Your task to perform on an android device: turn off improve location accuracy Image 0: 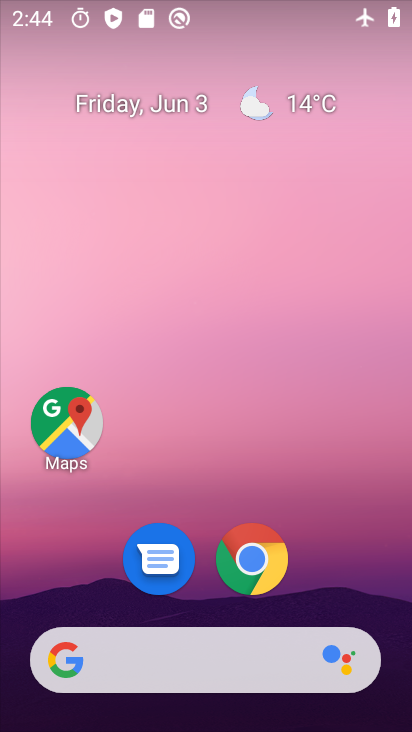
Step 0: drag from (201, 599) to (203, 429)
Your task to perform on an android device: turn off improve location accuracy Image 1: 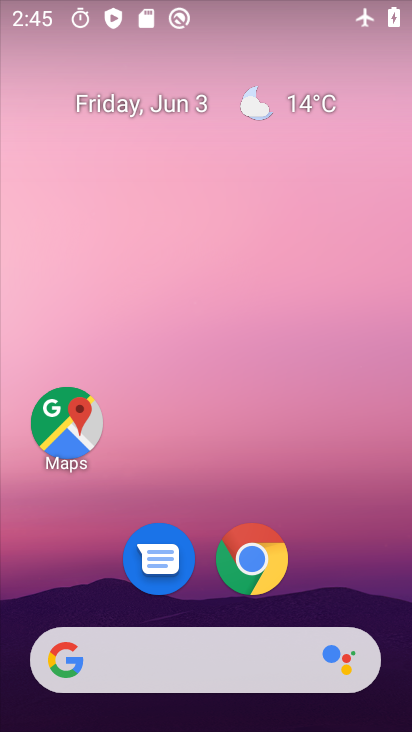
Step 1: drag from (205, 620) to (109, 19)
Your task to perform on an android device: turn off improve location accuracy Image 2: 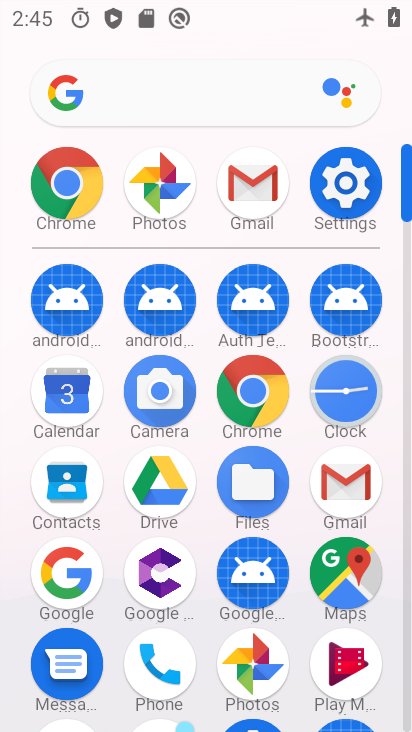
Step 2: click (368, 201)
Your task to perform on an android device: turn off improve location accuracy Image 3: 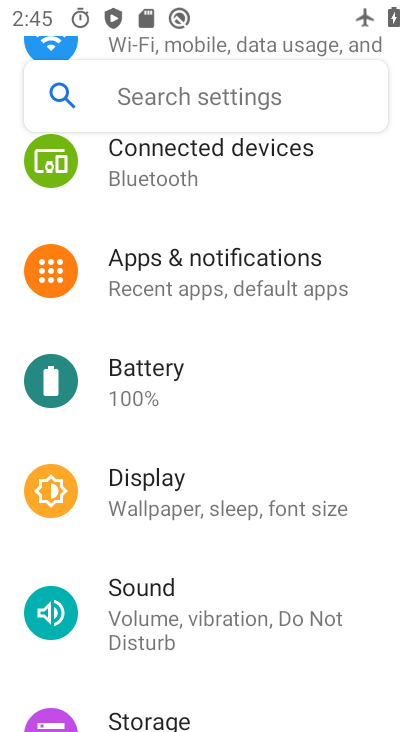
Step 3: drag from (233, 576) to (226, 158)
Your task to perform on an android device: turn off improve location accuracy Image 4: 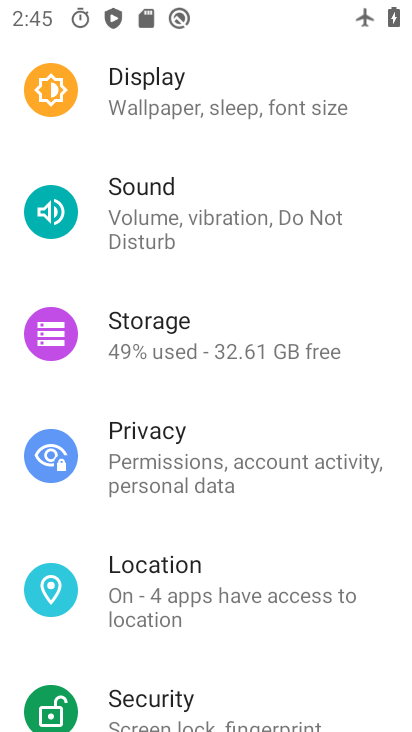
Step 4: click (194, 576)
Your task to perform on an android device: turn off improve location accuracy Image 5: 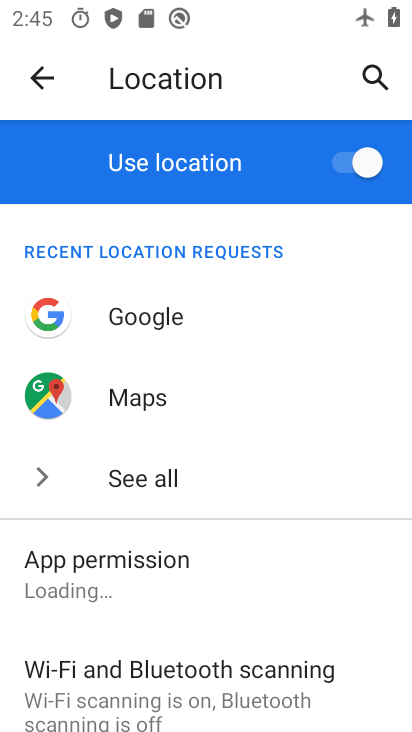
Step 5: drag from (191, 586) to (177, 145)
Your task to perform on an android device: turn off improve location accuracy Image 6: 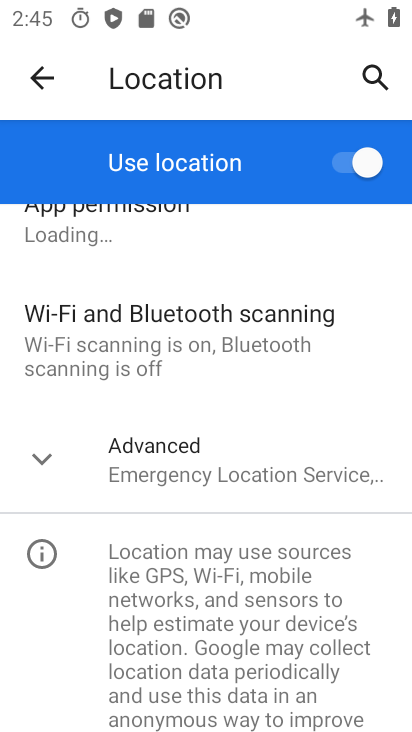
Step 6: click (185, 466)
Your task to perform on an android device: turn off improve location accuracy Image 7: 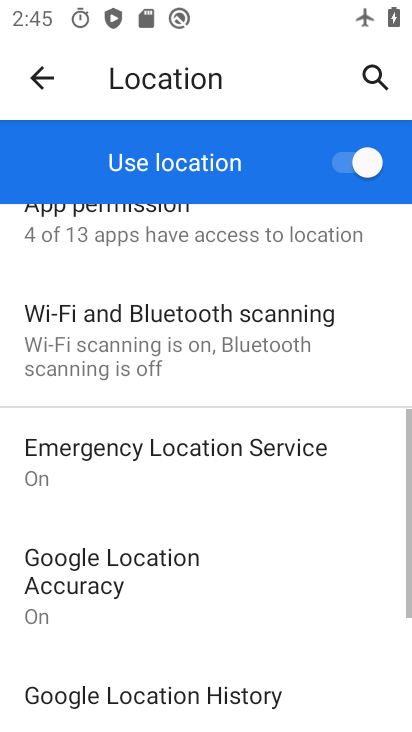
Step 7: click (165, 578)
Your task to perform on an android device: turn off improve location accuracy Image 8: 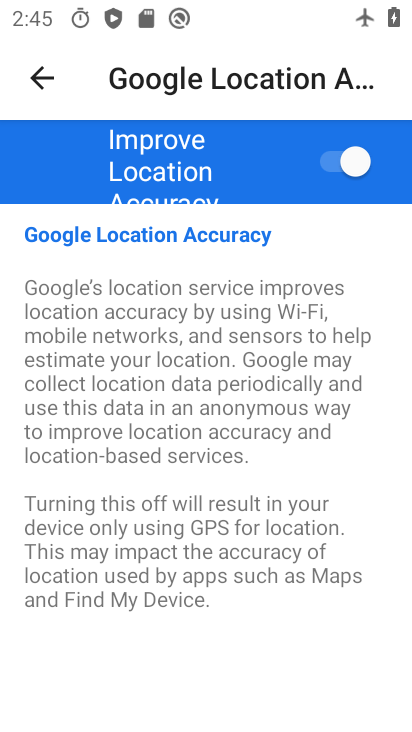
Step 8: click (318, 164)
Your task to perform on an android device: turn off improve location accuracy Image 9: 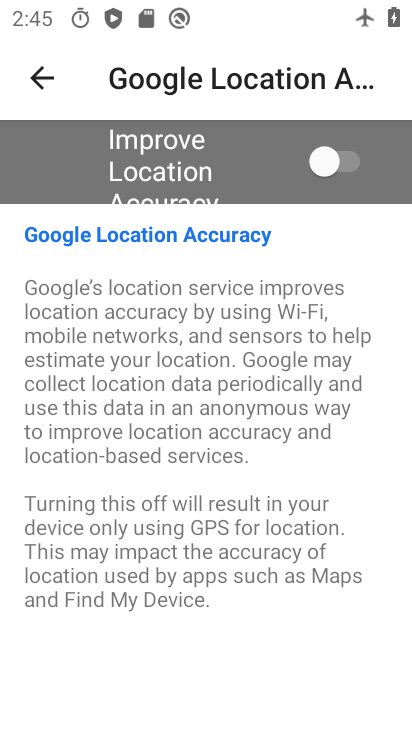
Step 9: task complete